Your task to perform on an android device: Search for vegetarian restaurants on Maps Image 0: 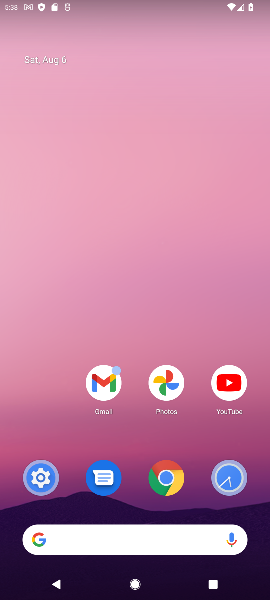
Step 0: drag from (130, 498) to (133, 95)
Your task to perform on an android device: Search for vegetarian restaurants on Maps Image 1: 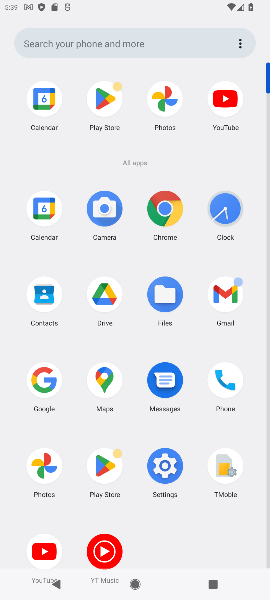
Step 1: click (107, 374)
Your task to perform on an android device: Search for vegetarian restaurants on Maps Image 2: 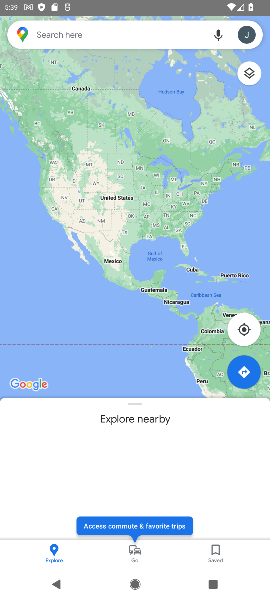
Step 2: click (95, 34)
Your task to perform on an android device: Search for vegetarian restaurants on Maps Image 3: 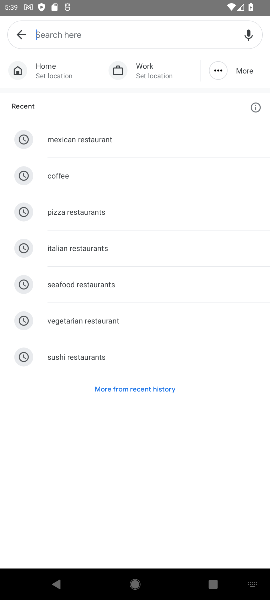
Step 3: click (75, 321)
Your task to perform on an android device: Search for vegetarian restaurants on Maps Image 4: 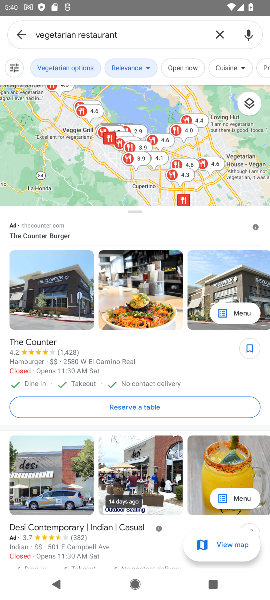
Step 4: task complete